Your task to perform on an android device: Go to CNN.com Image 0: 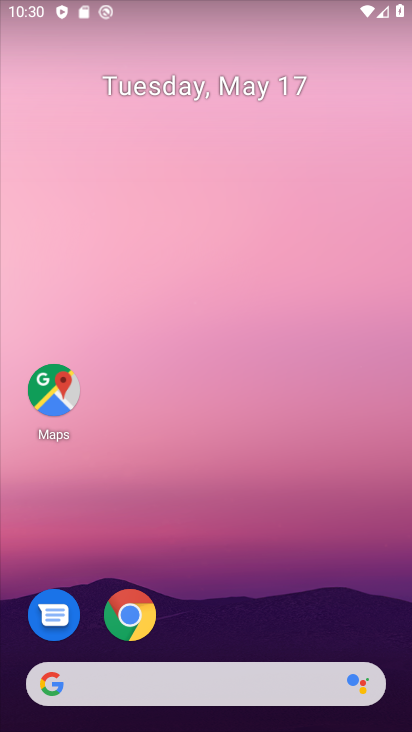
Step 0: click (132, 618)
Your task to perform on an android device: Go to CNN.com Image 1: 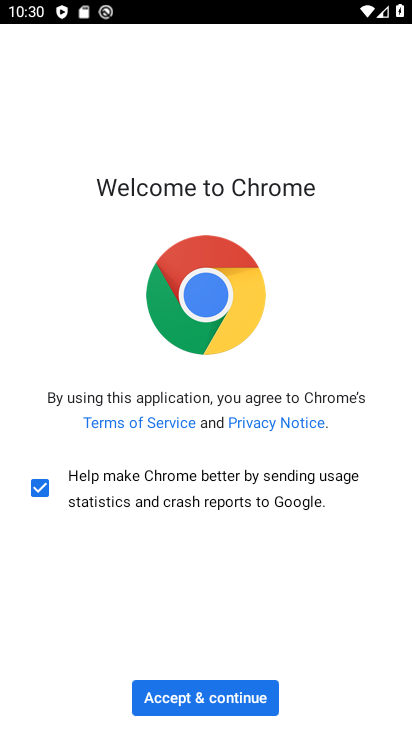
Step 1: click (159, 700)
Your task to perform on an android device: Go to CNN.com Image 2: 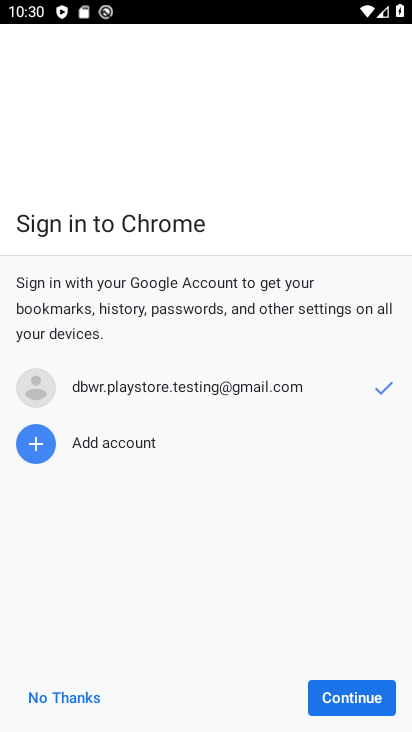
Step 2: click (347, 687)
Your task to perform on an android device: Go to CNN.com Image 3: 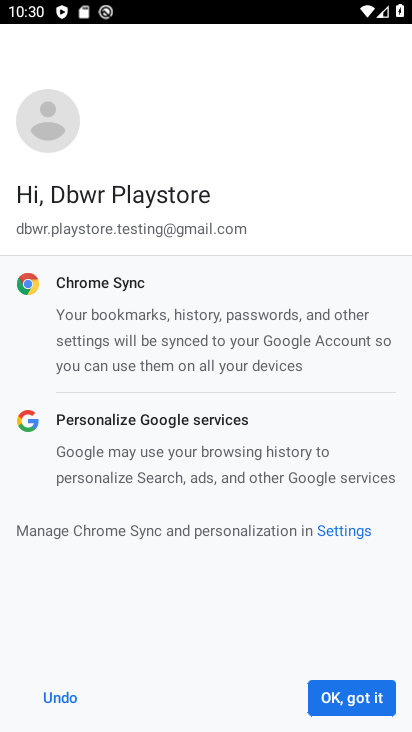
Step 3: click (376, 706)
Your task to perform on an android device: Go to CNN.com Image 4: 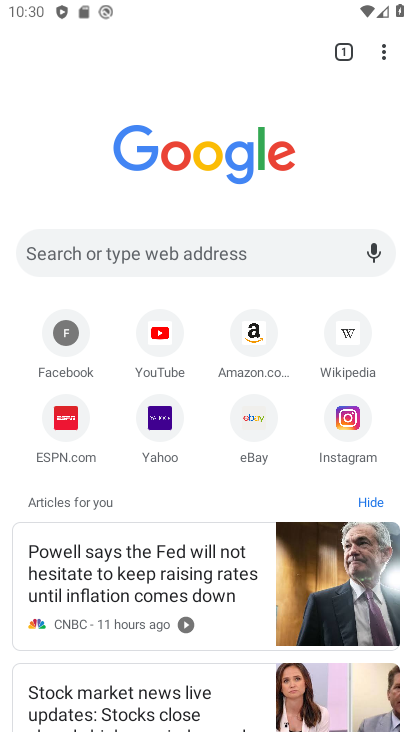
Step 4: click (139, 263)
Your task to perform on an android device: Go to CNN.com Image 5: 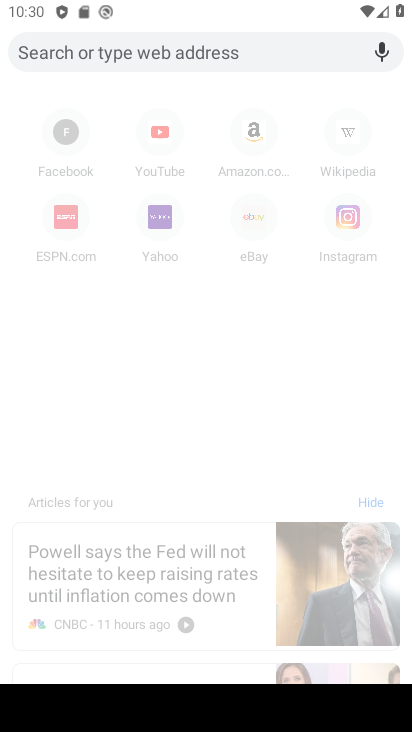
Step 5: type "CNN.com"
Your task to perform on an android device: Go to CNN.com Image 6: 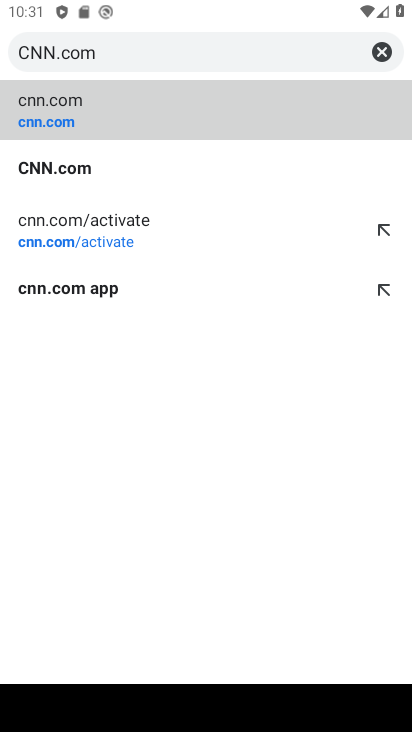
Step 6: click (118, 162)
Your task to perform on an android device: Go to CNN.com Image 7: 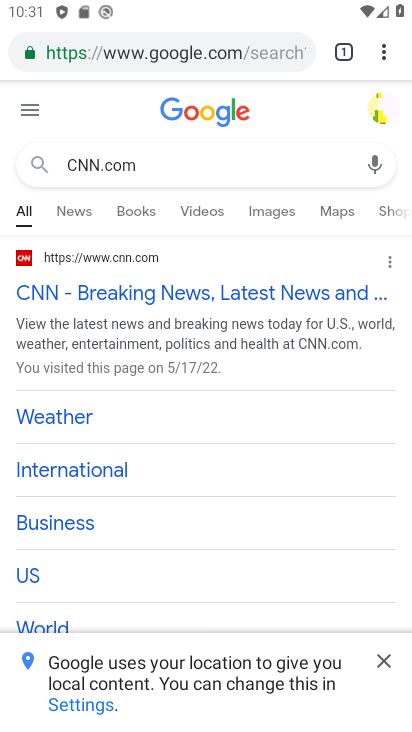
Step 7: task complete